Your task to perform on an android device: delete a single message in the gmail app Image 0: 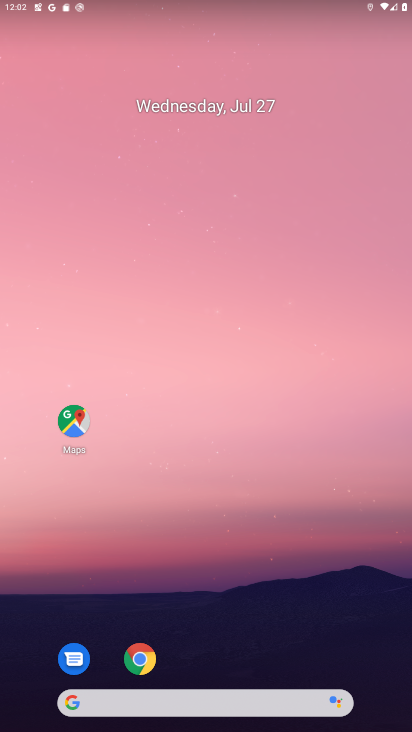
Step 0: drag from (185, 706) to (213, 15)
Your task to perform on an android device: delete a single message in the gmail app Image 1: 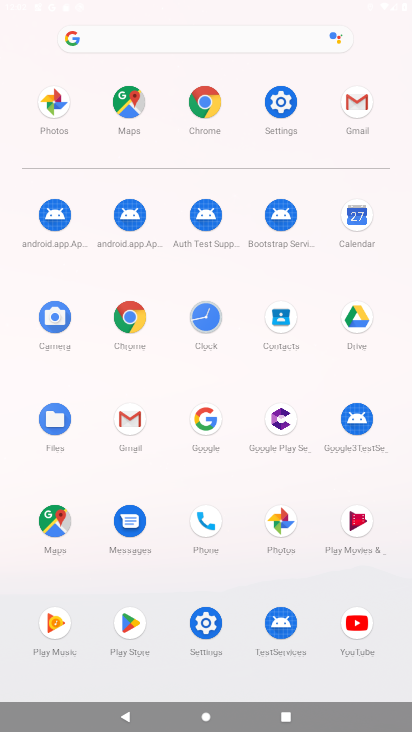
Step 1: click (132, 414)
Your task to perform on an android device: delete a single message in the gmail app Image 2: 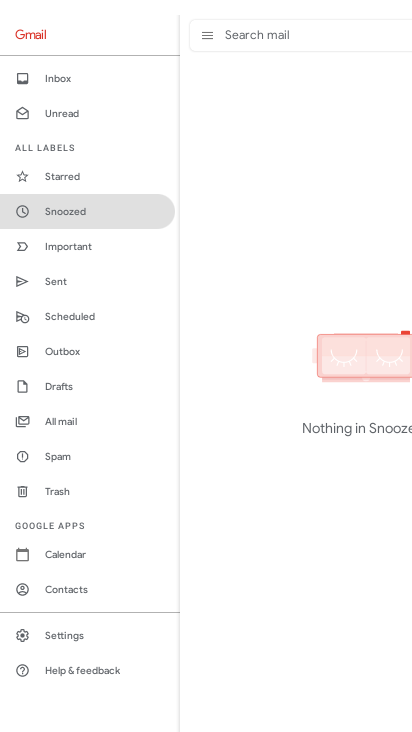
Step 2: click (69, 80)
Your task to perform on an android device: delete a single message in the gmail app Image 3: 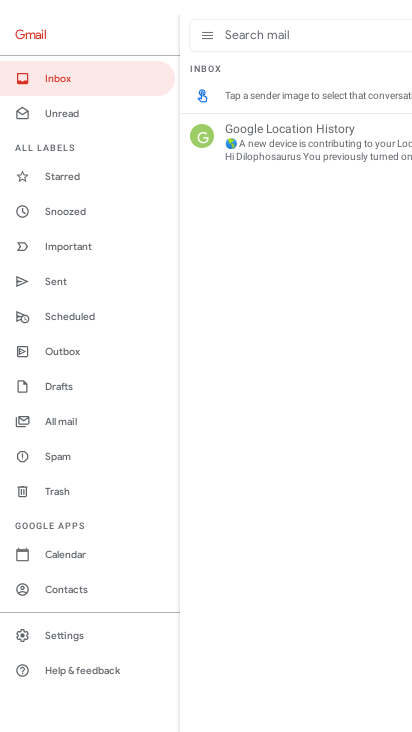
Step 3: task complete